Your task to perform on an android device: toggle notifications settings in the gmail app Image 0: 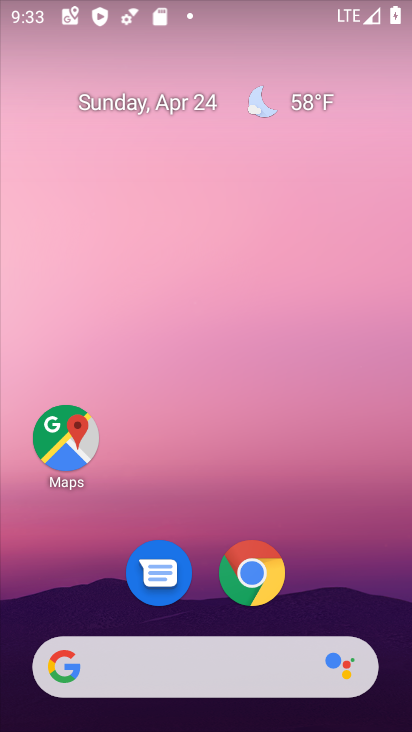
Step 0: drag from (326, 504) to (271, 48)
Your task to perform on an android device: toggle notifications settings in the gmail app Image 1: 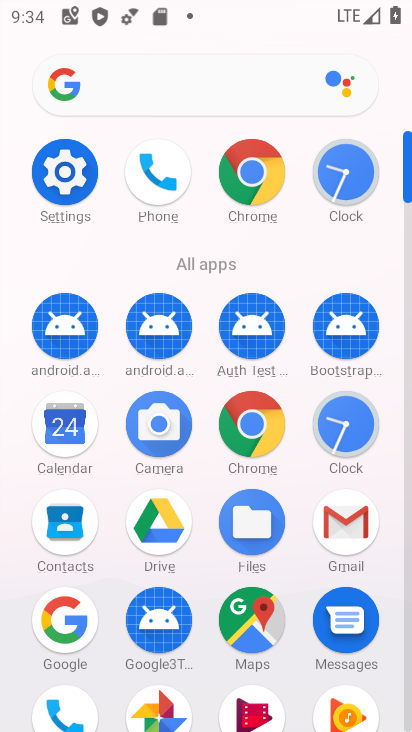
Step 1: click (336, 528)
Your task to perform on an android device: toggle notifications settings in the gmail app Image 2: 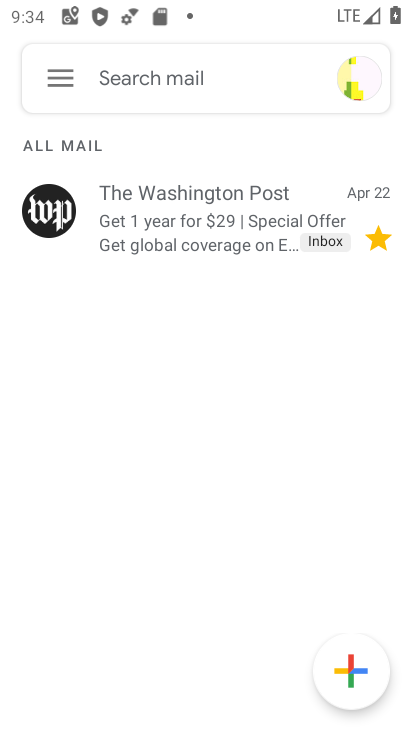
Step 2: click (65, 80)
Your task to perform on an android device: toggle notifications settings in the gmail app Image 3: 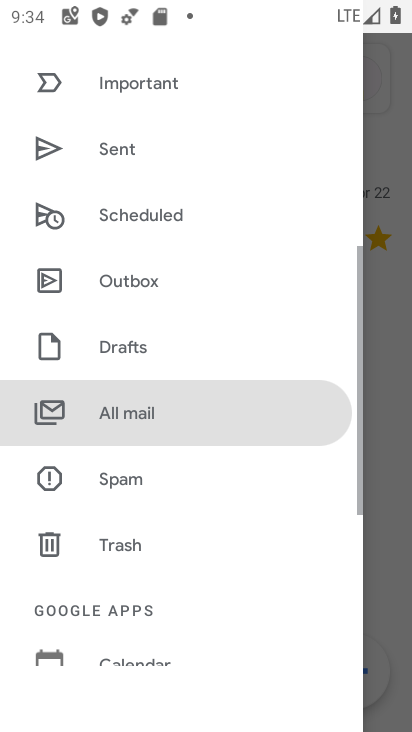
Step 3: drag from (129, 614) to (208, 53)
Your task to perform on an android device: toggle notifications settings in the gmail app Image 4: 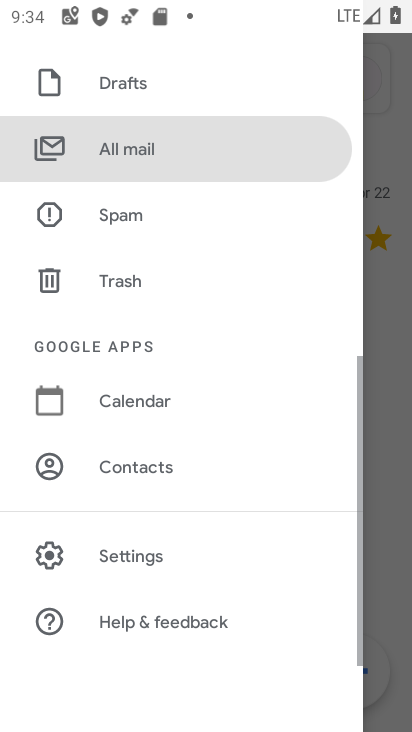
Step 4: click (128, 551)
Your task to perform on an android device: toggle notifications settings in the gmail app Image 5: 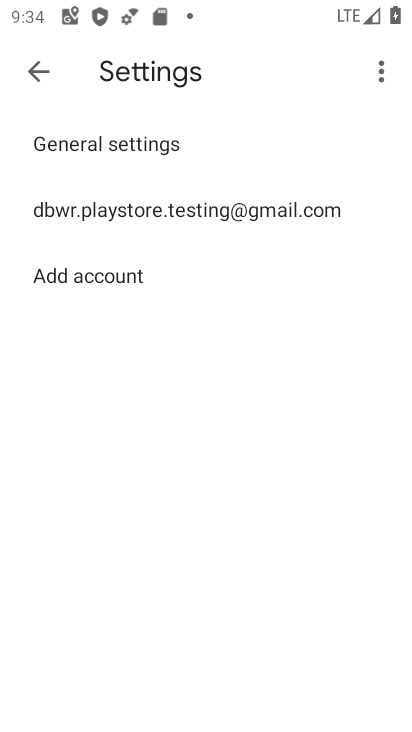
Step 5: click (174, 216)
Your task to perform on an android device: toggle notifications settings in the gmail app Image 6: 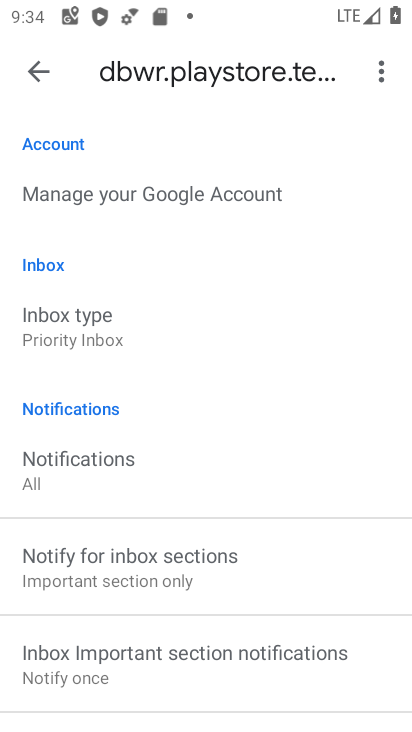
Step 6: drag from (143, 565) to (264, 93)
Your task to perform on an android device: toggle notifications settings in the gmail app Image 7: 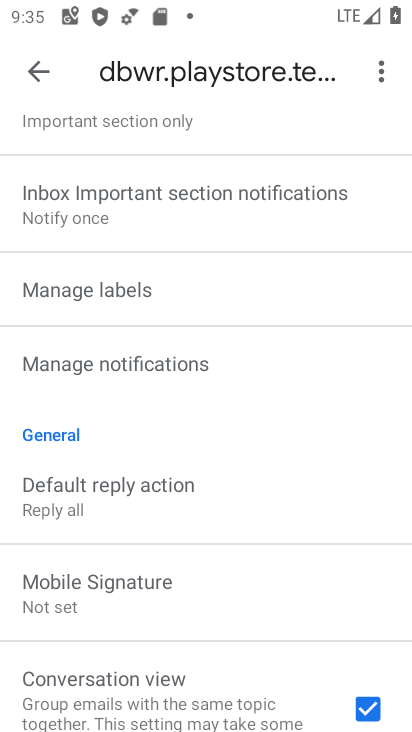
Step 7: click (164, 364)
Your task to perform on an android device: toggle notifications settings in the gmail app Image 8: 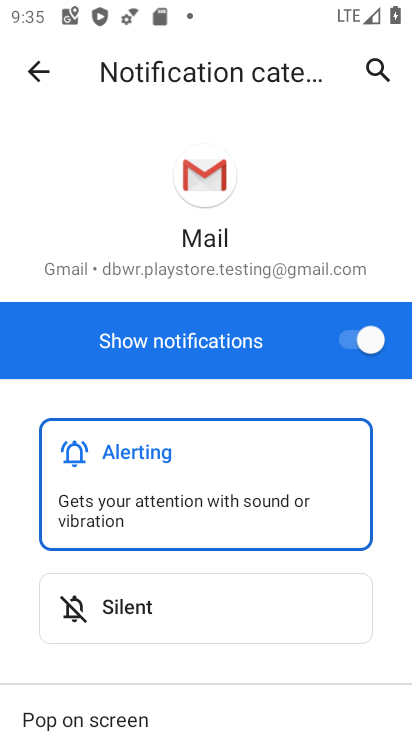
Step 8: click (349, 343)
Your task to perform on an android device: toggle notifications settings in the gmail app Image 9: 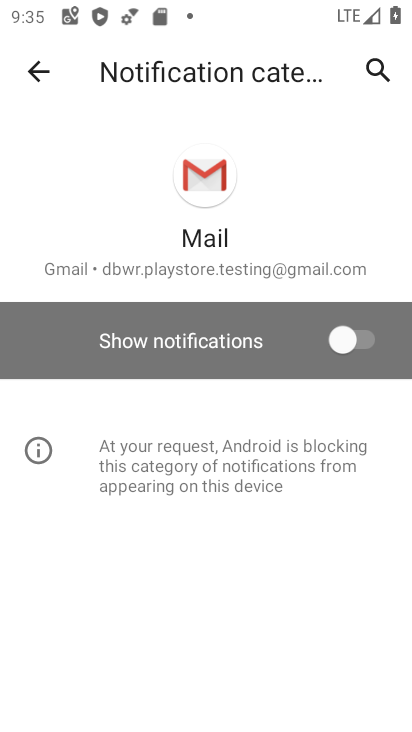
Step 9: task complete